Your task to perform on an android device: open chrome and create a bookmark for the current page Image 0: 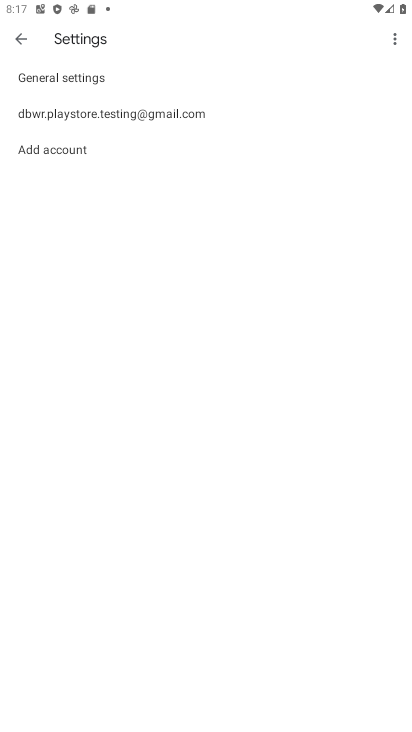
Step 0: press home button
Your task to perform on an android device: open chrome and create a bookmark for the current page Image 1: 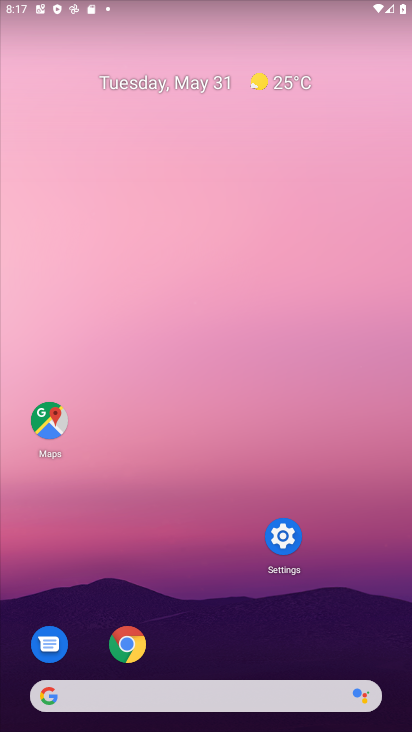
Step 1: drag from (166, 718) to (212, 328)
Your task to perform on an android device: open chrome and create a bookmark for the current page Image 2: 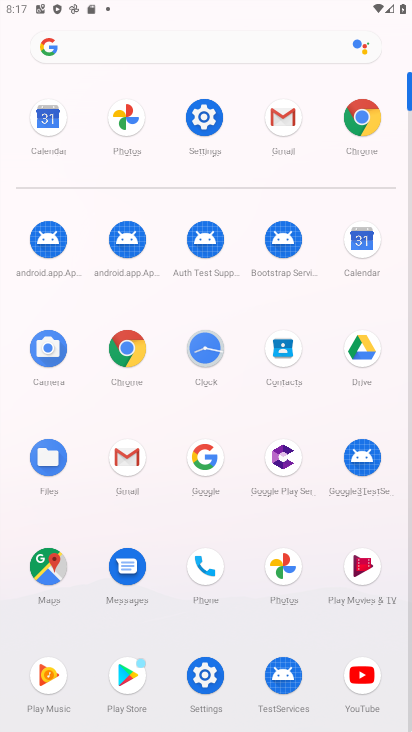
Step 2: click (358, 124)
Your task to perform on an android device: open chrome and create a bookmark for the current page Image 3: 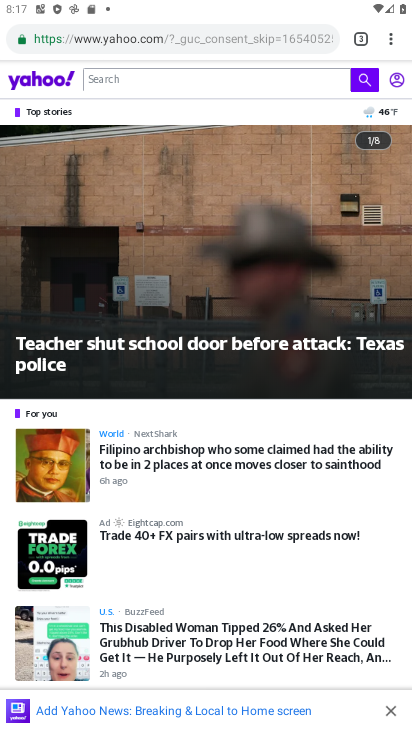
Step 3: click (387, 38)
Your task to perform on an android device: open chrome and create a bookmark for the current page Image 4: 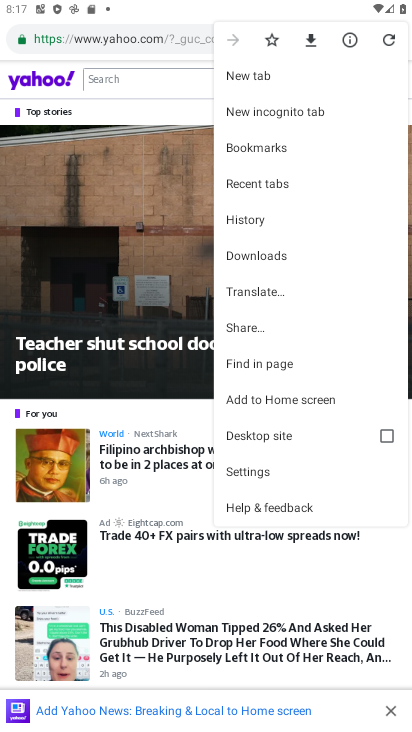
Step 4: click (257, 153)
Your task to perform on an android device: open chrome and create a bookmark for the current page Image 5: 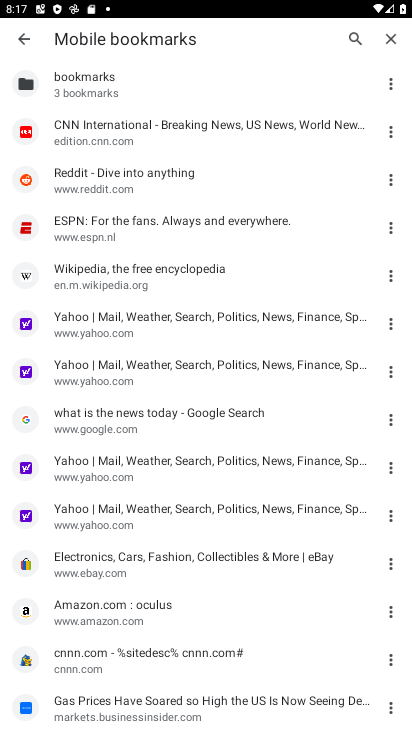
Step 5: task complete